Your task to perform on an android device: What's the weather? Image 0: 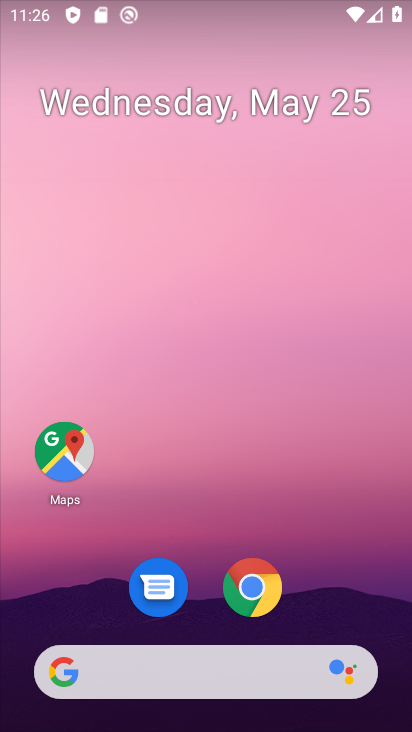
Step 0: press home button
Your task to perform on an android device: What's the weather? Image 1: 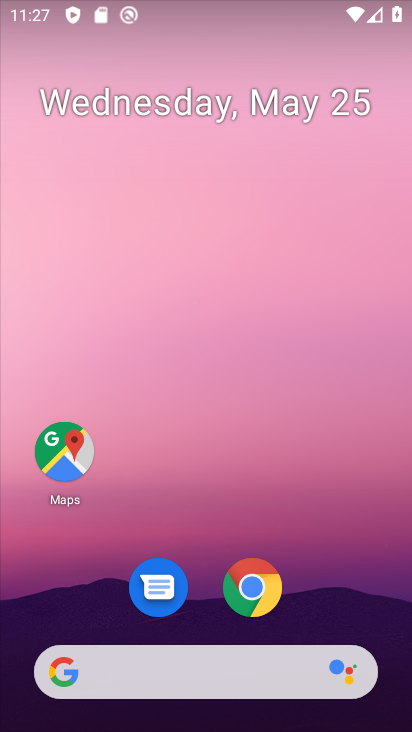
Step 1: drag from (204, 676) to (227, 229)
Your task to perform on an android device: What's the weather? Image 2: 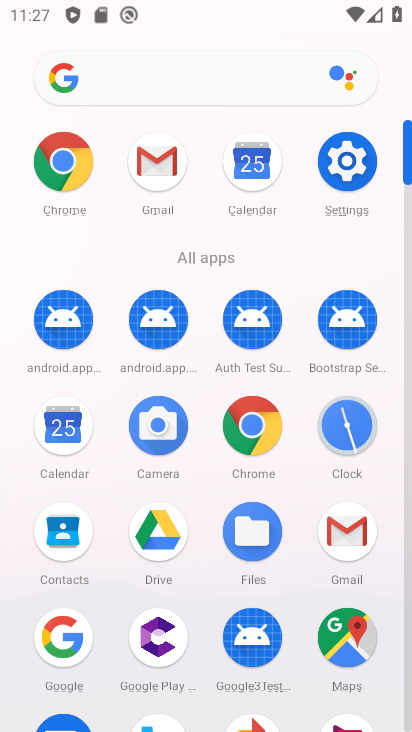
Step 2: click (133, 79)
Your task to perform on an android device: What's the weather? Image 3: 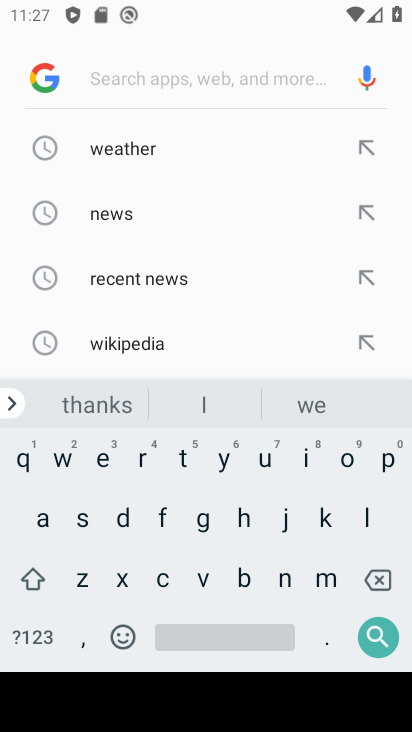
Step 3: click (162, 151)
Your task to perform on an android device: What's the weather? Image 4: 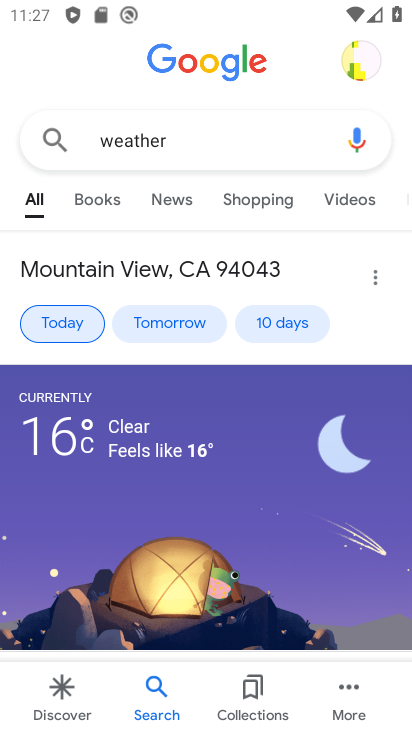
Step 4: task complete